Your task to perform on an android device: Open calendar and show me the second week of next month Image 0: 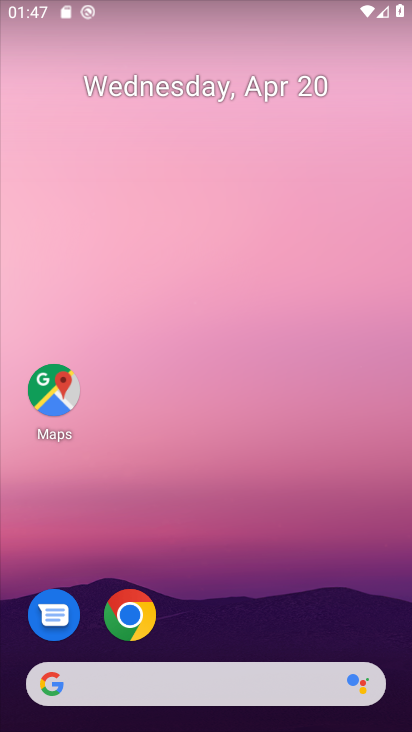
Step 0: drag from (336, 395) to (321, 17)
Your task to perform on an android device: Open calendar and show me the second week of next month Image 1: 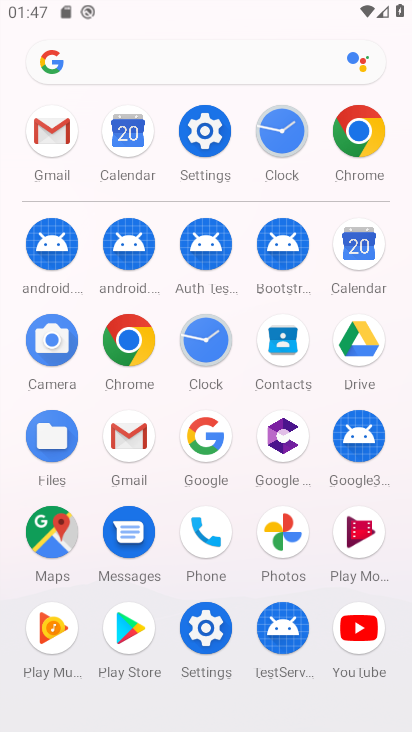
Step 1: click (351, 247)
Your task to perform on an android device: Open calendar and show me the second week of next month Image 2: 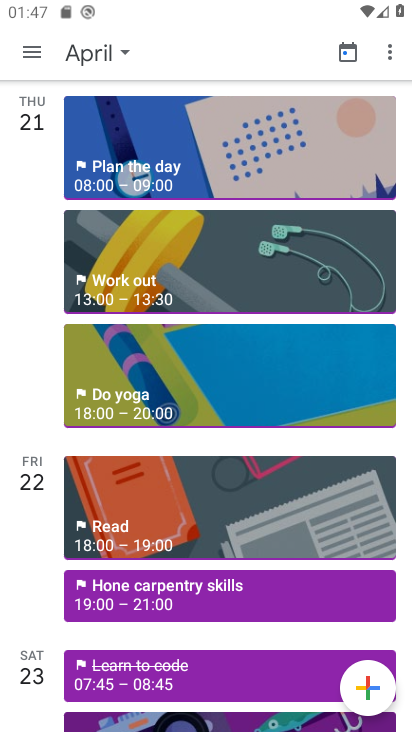
Step 2: drag from (358, 184) to (89, 157)
Your task to perform on an android device: Open calendar and show me the second week of next month Image 3: 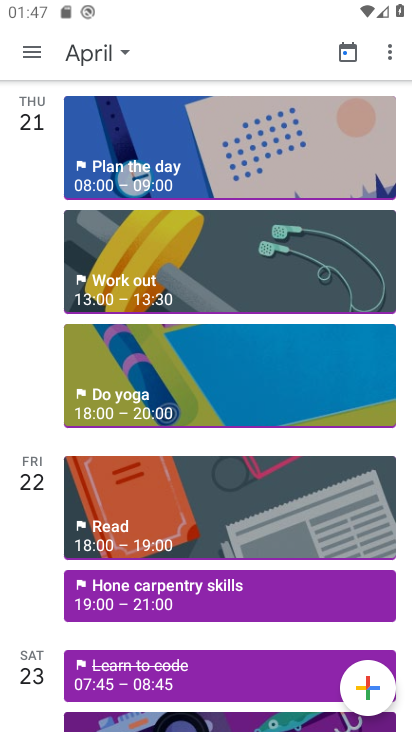
Step 3: click (128, 54)
Your task to perform on an android device: Open calendar and show me the second week of next month Image 4: 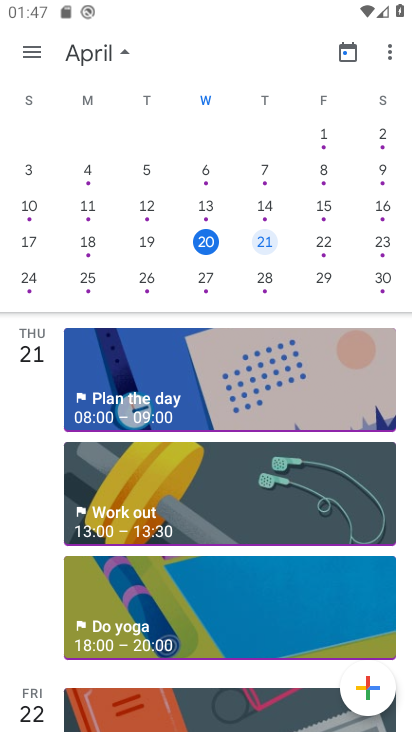
Step 4: click (164, 133)
Your task to perform on an android device: Open calendar and show me the second week of next month Image 5: 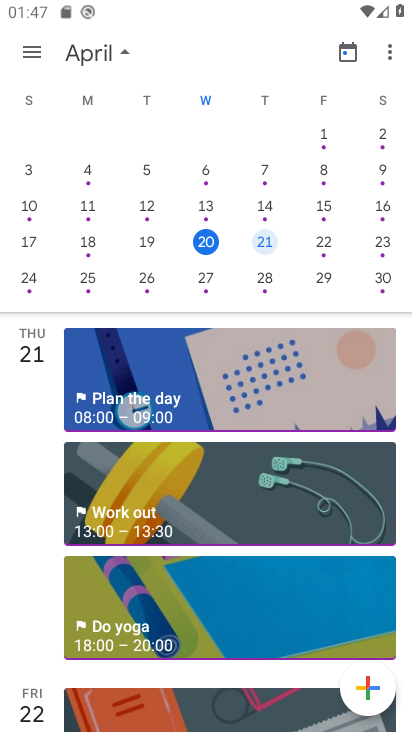
Step 5: drag from (394, 164) to (78, 164)
Your task to perform on an android device: Open calendar and show me the second week of next month Image 6: 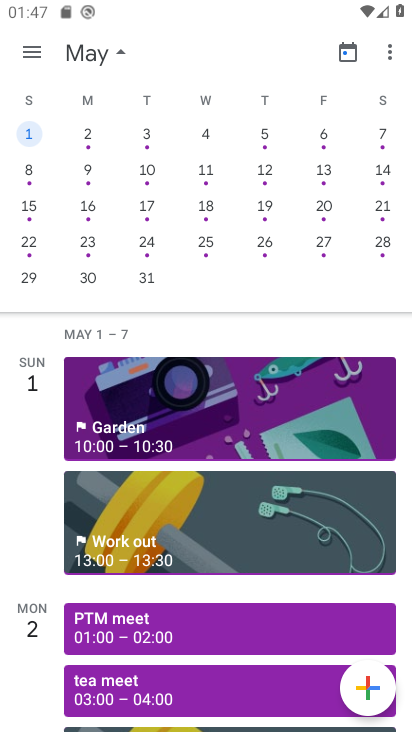
Step 6: click (150, 165)
Your task to perform on an android device: Open calendar and show me the second week of next month Image 7: 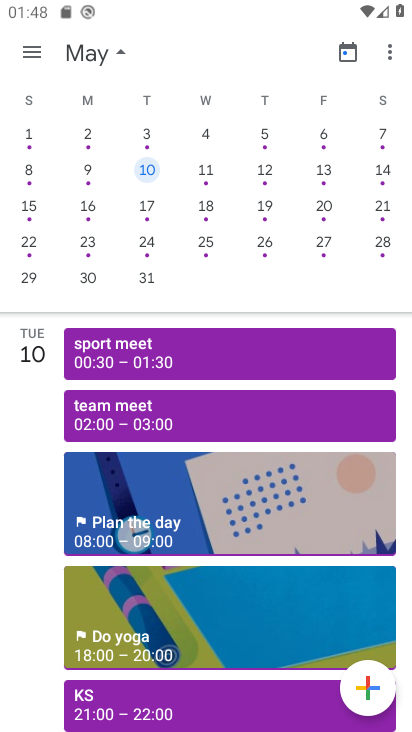
Step 7: task complete